Your task to perform on an android device: Open sound settings Image 0: 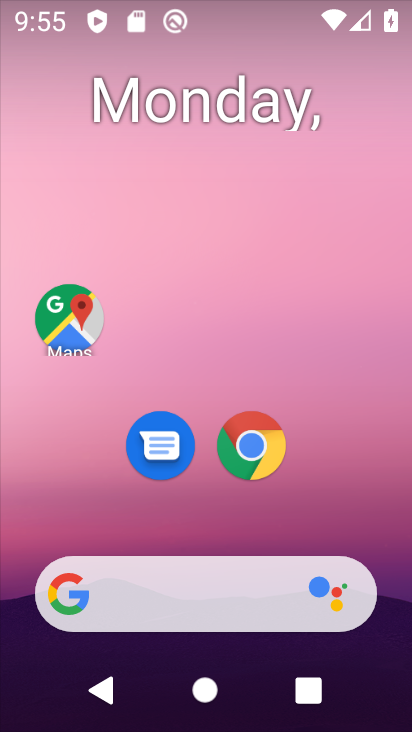
Step 0: drag from (294, 493) to (267, 119)
Your task to perform on an android device: Open sound settings Image 1: 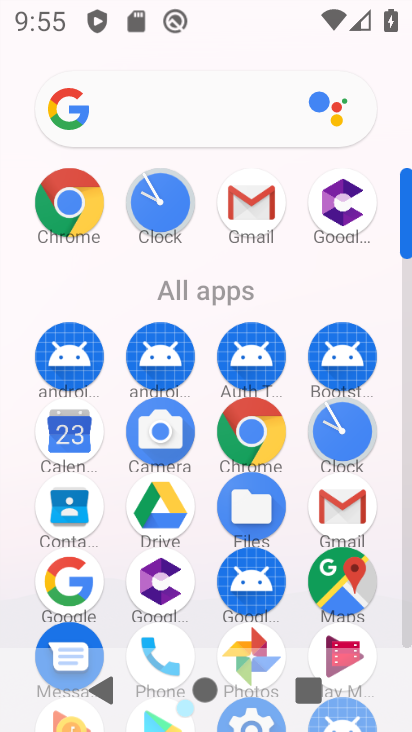
Step 1: drag from (310, 534) to (251, 223)
Your task to perform on an android device: Open sound settings Image 2: 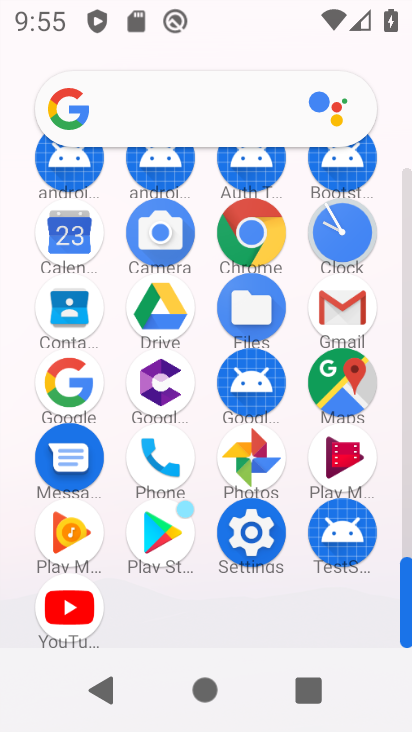
Step 2: click (251, 540)
Your task to perform on an android device: Open sound settings Image 3: 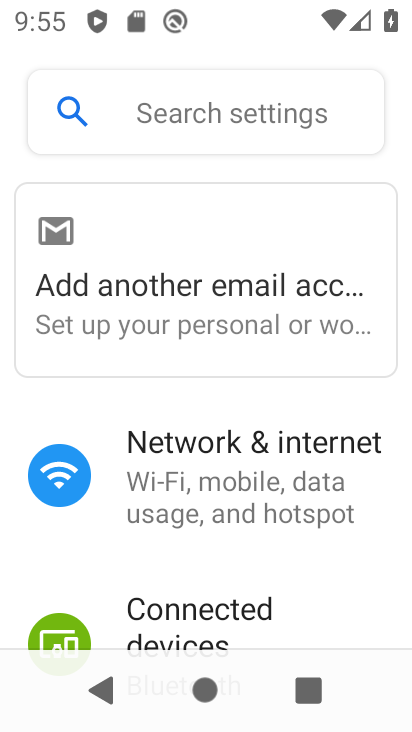
Step 3: drag from (244, 523) to (264, 207)
Your task to perform on an android device: Open sound settings Image 4: 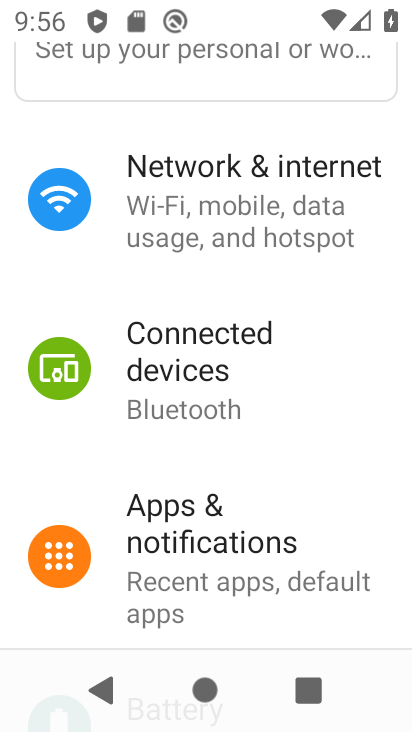
Step 4: drag from (105, 432) to (210, 108)
Your task to perform on an android device: Open sound settings Image 5: 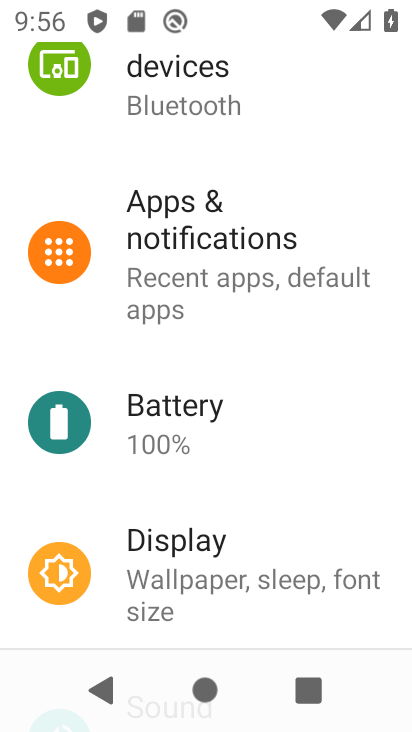
Step 5: drag from (273, 476) to (264, 114)
Your task to perform on an android device: Open sound settings Image 6: 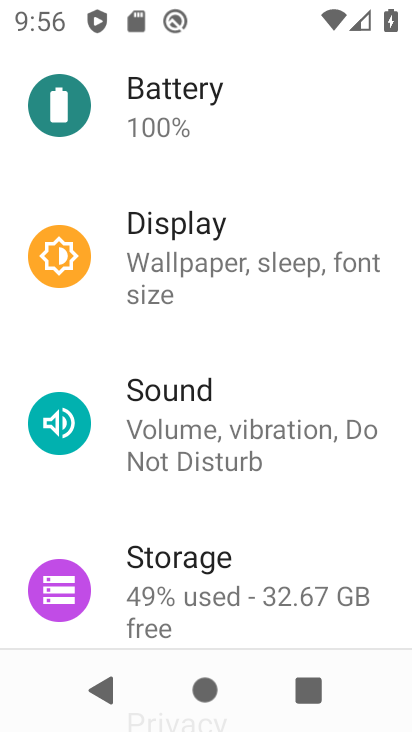
Step 6: click (209, 409)
Your task to perform on an android device: Open sound settings Image 7: 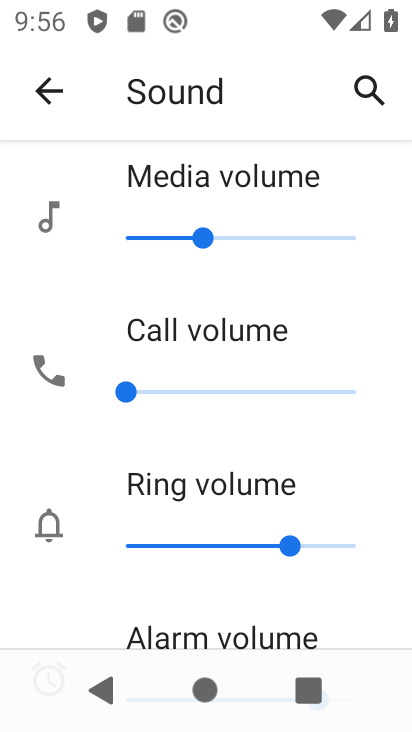
Step 7: task complete